Your task to perform on an android device: Open CNN.com Image 0: 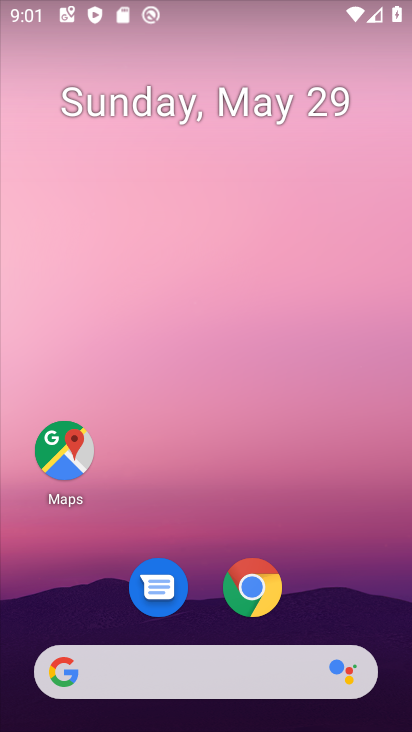
Step 0: click (258, 590)
Your task to perform on an android device: Open CNN.com Image 1: 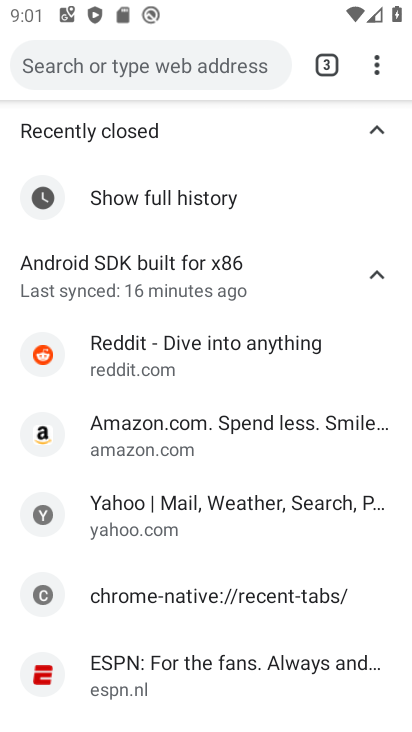
Step 1: click (320, 68)
Your task to perform on an android device: Open CNN.com Image 2: 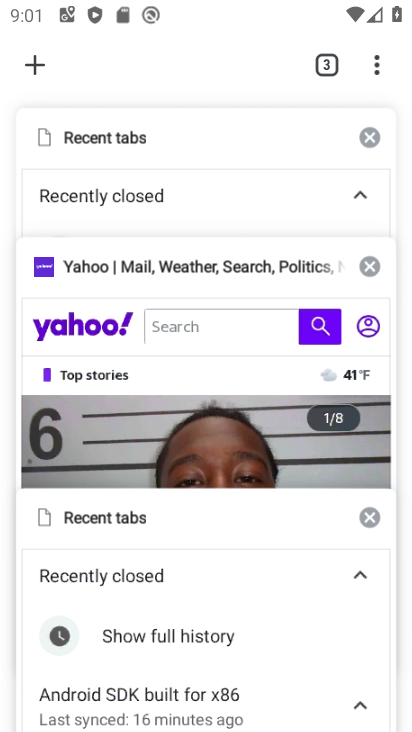
Step 2: click (37, 66)
Your task to perform on an android device: Open CNN.com Image 3: 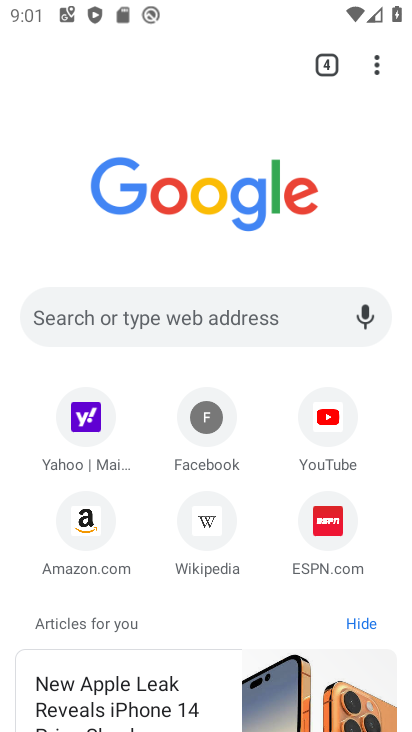
Step 3: click (116, 309)
Your task to perform on an android device: Open CNN.com Image 4: 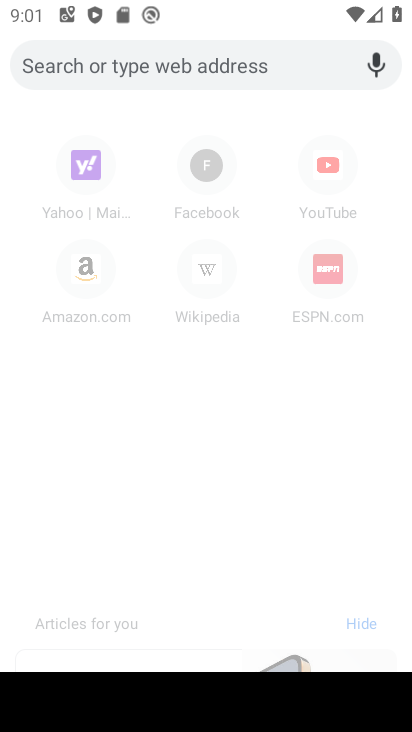
Step 4: type "cnn.com"
Your task to perform on an android device: Open CNN.com Image 5: 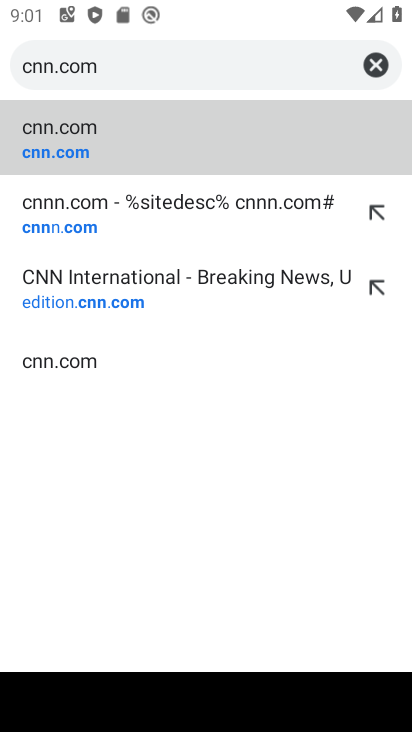
Step 5: click (63, 138)
Your task to perform on an android device: Open CNN.com Image 6: 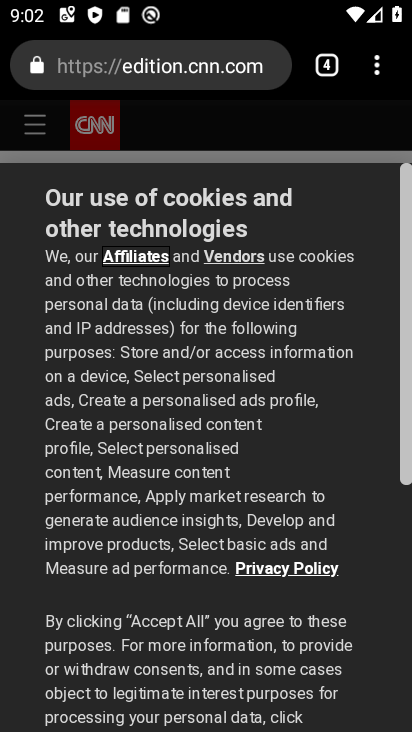
Step 6: task complete